Your task to perform on an android device: turn notification dots on Image 0: 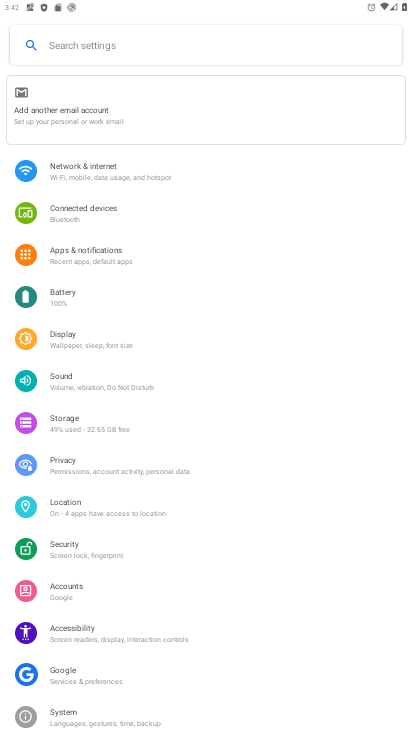
Step 0: click (85, 256)
Your task to perform on an android device: turn notification dots on Image 1: 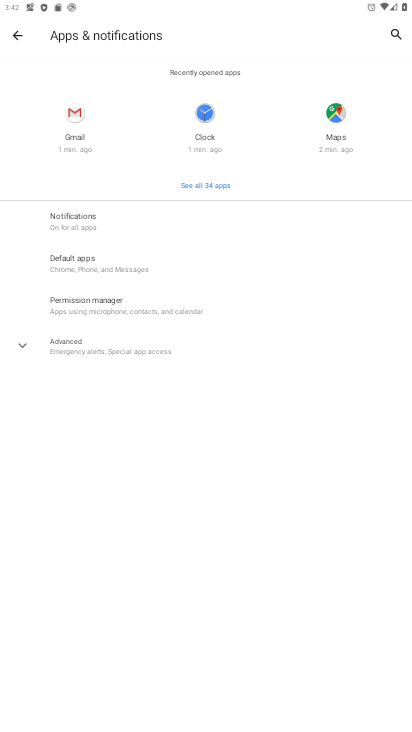
Step 1: click (81, 220)
Your task to perform on an android device: turn notification dots on Image 2: 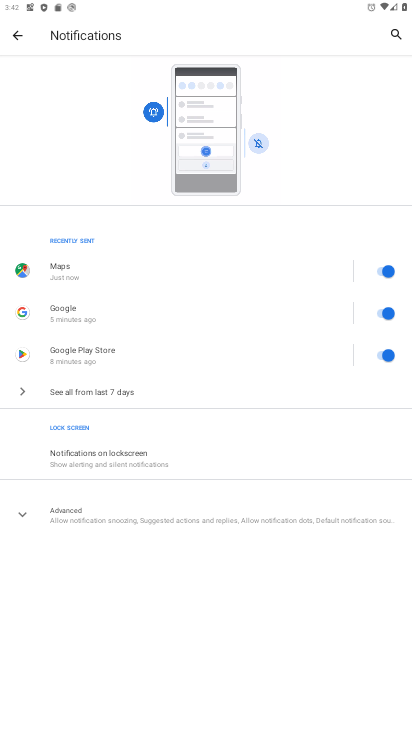
Step 2: click (85, 503)
Your task to perform on an android device: turn notification dots on Image 3: 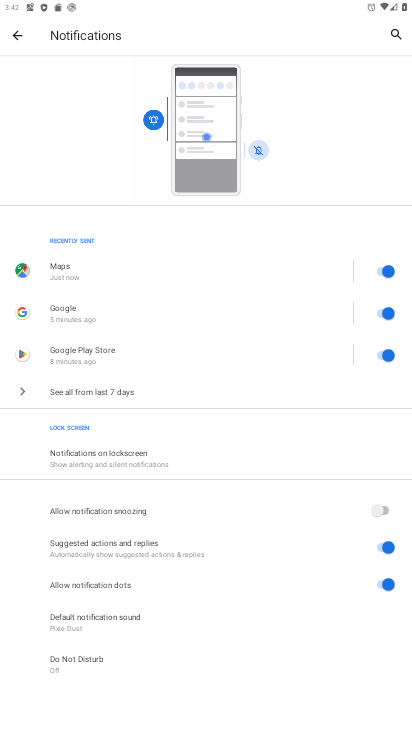
Step 3: task complete